Your task to perform on an android device: Open Reddit.com Image 0: 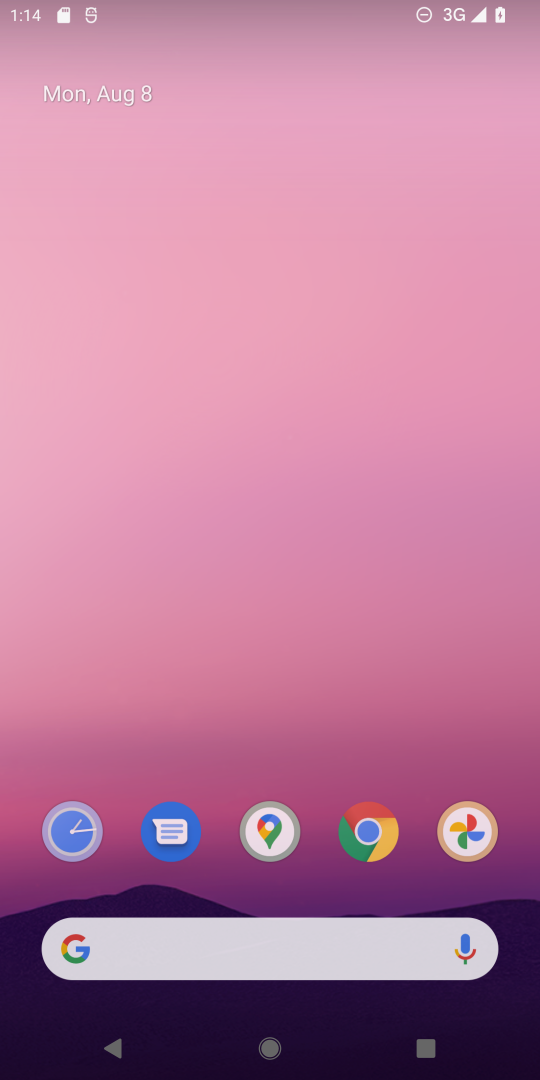
Step 0: press home button
Your task to perform on an android device: Open Reddit.com Image 1: 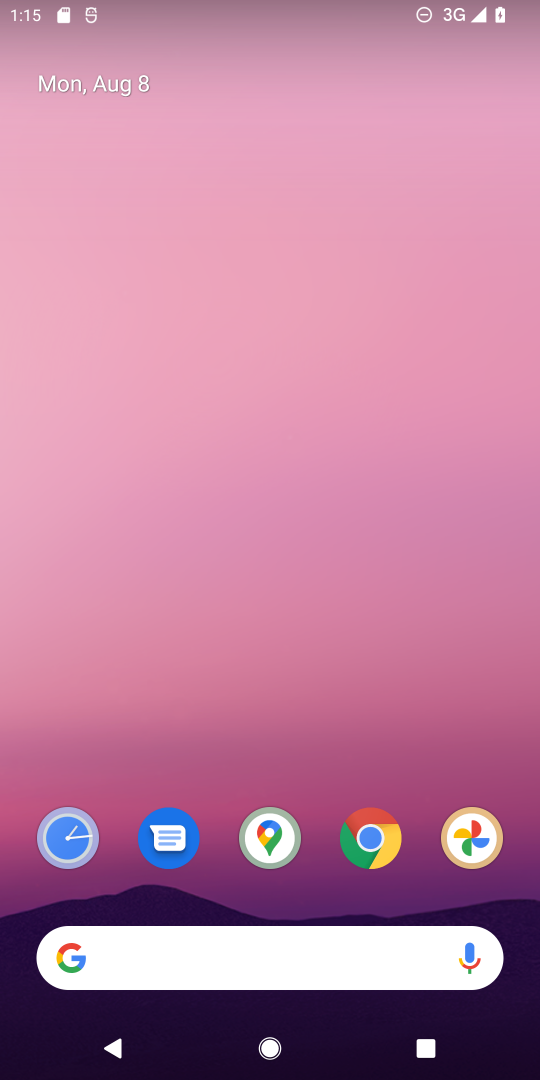
Step 1: click (56, 971)
Your task to perform on an android device: Open Reddit.com Image 2: 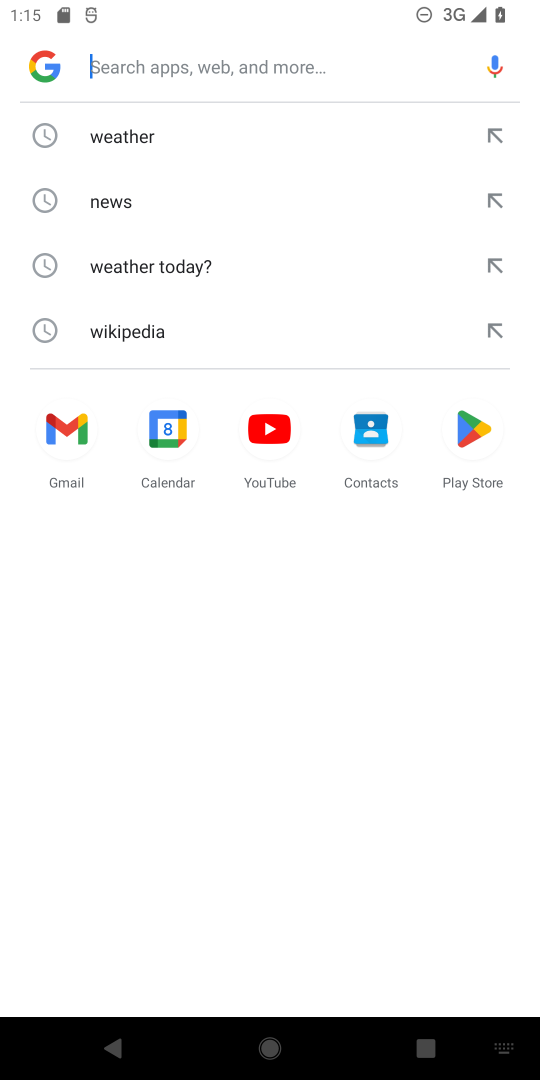
Step 2: type "Reddit.com"
Your task to perform on an android device: Open Reddit.com Image 3: 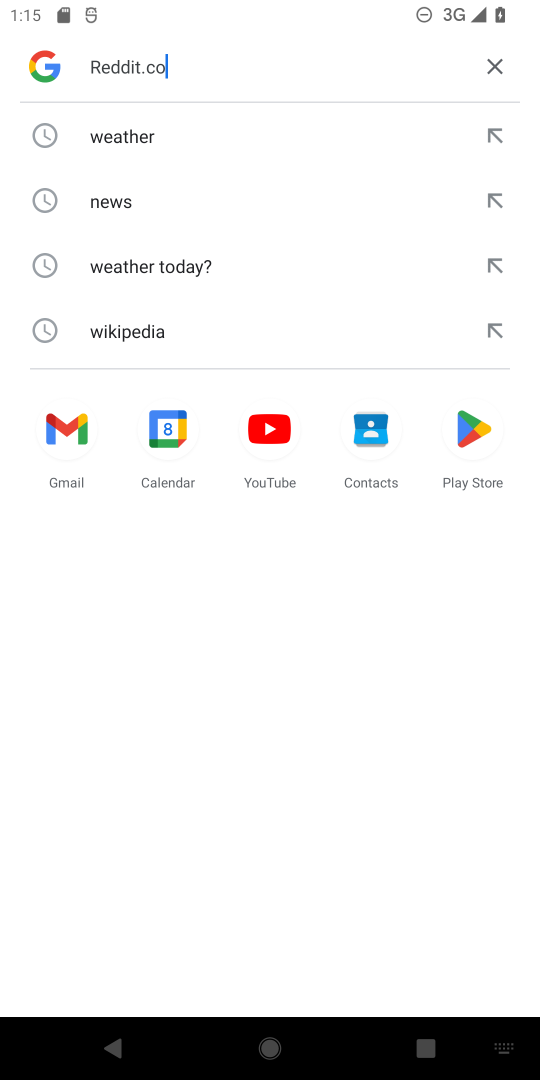
Step 3: press enter
Your task to perform on an android device: Open Reddit.com Image 4: 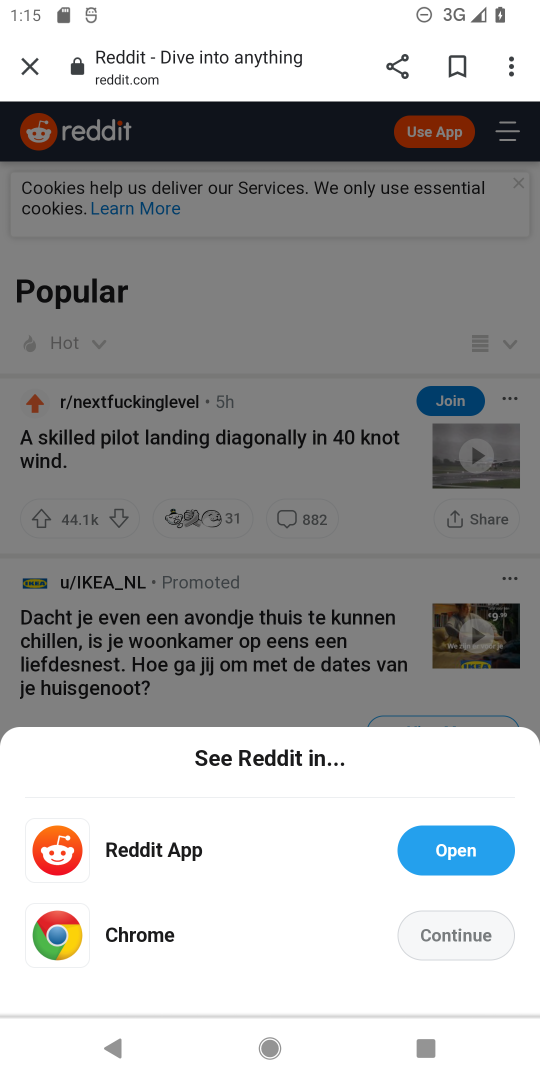
Step 4: task complete